Your task to perform on an android device: Open Chrome and go to settings Image 0: 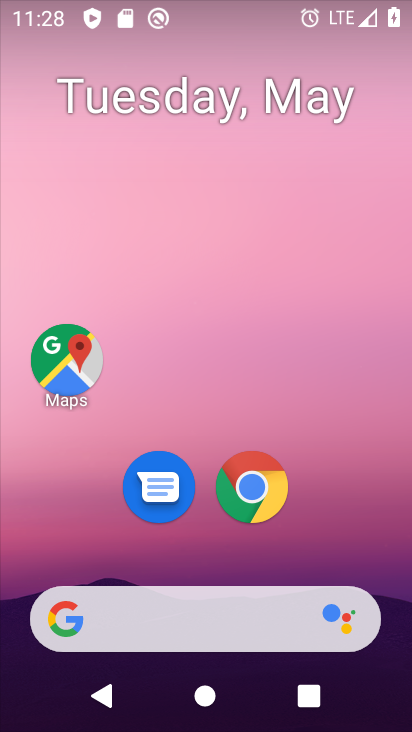
Step 0: click (253, 489)
Your task to perform on an android device: Open Chrome and go to settings Image 1: 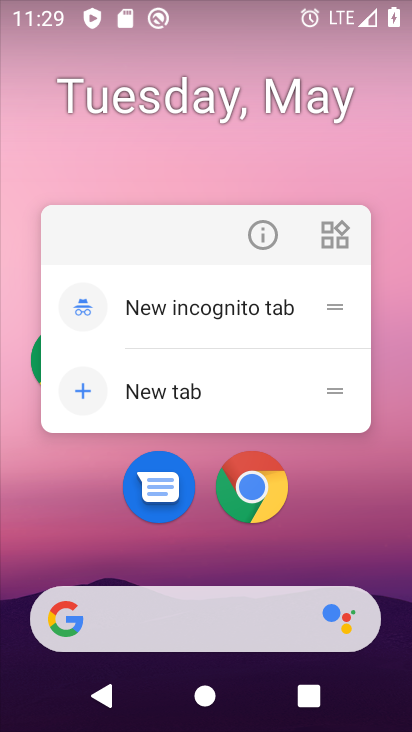
Step 1: click (260, 234)
Your task to perform on an android device: Open Chrome and go to settings Image 2: 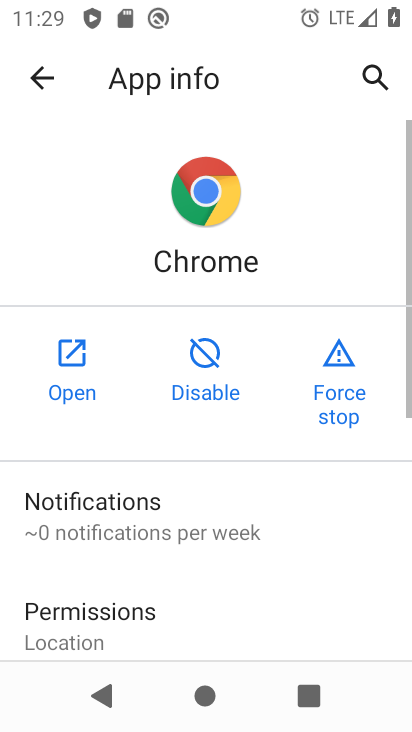
Step 2: click (65, 350)
Your task to perform on an android device: Open Chrome and go to settings Image 3: 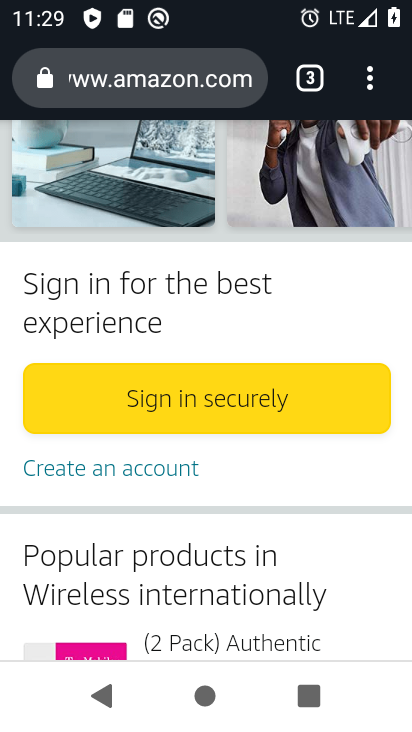
Step 3: drag from (219, 511) to (260, 179)
Your task to perform on an android device: Open Chrome and go to settings Image 4: 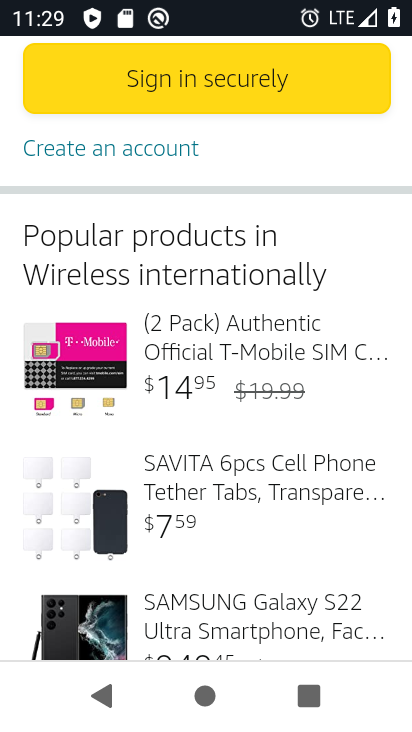
Step 4: drag from (261, 515) to (321, 509)
Your task to perform on an android device: Open Chrome and go to settings Image 5: 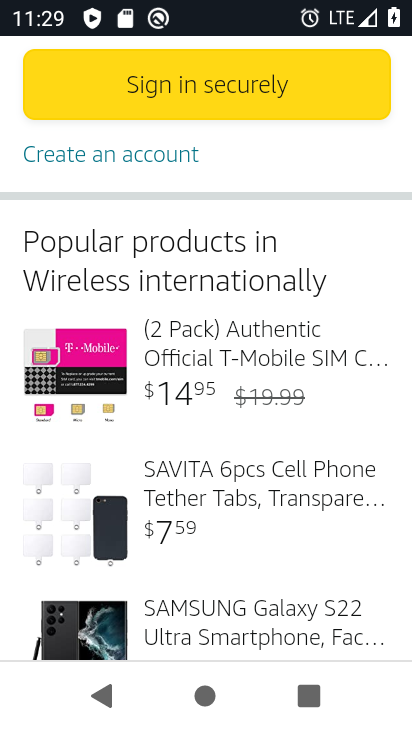
Step 5: drag from (350, 226) to (375, 552)
Your task to perform on an android device: Open Chrome and go to settings Image 6: 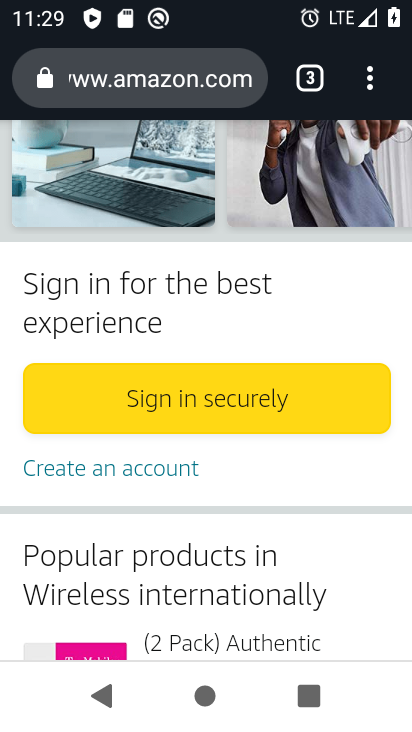
Step 6: click (358, 81)
Your task to perform on an android device: Open Chrome and go to settings Image 7: 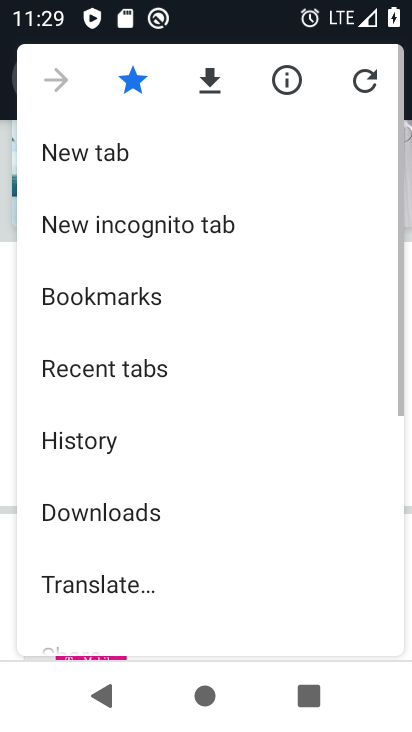
Step 7: drag from (215, 576) to (261, 154)
Your task to perform on an android device: Open Chrome and go to settings Image 8: 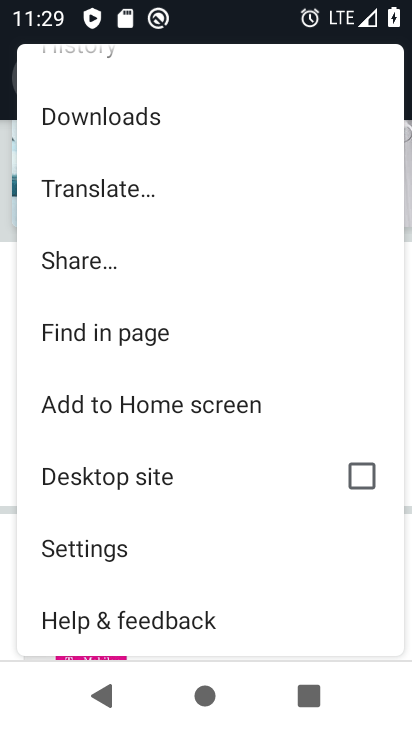
Step 8: click (88, 545)
Your task to perform on an android device: Open Chrome and go to settings Image 9: 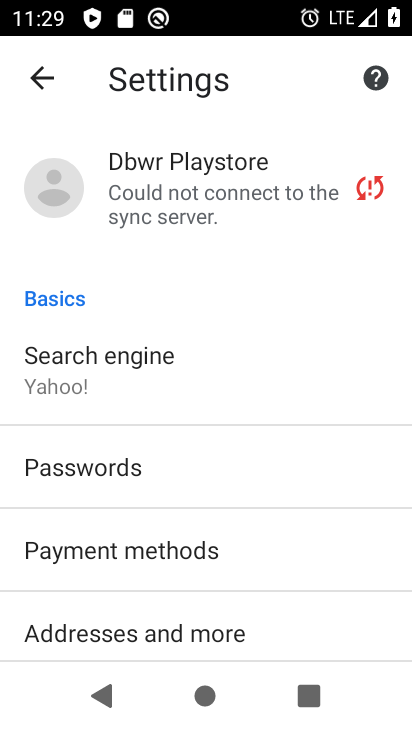
Step 9: task complete